Your task to perform on an android device: change timer sound Image 0: 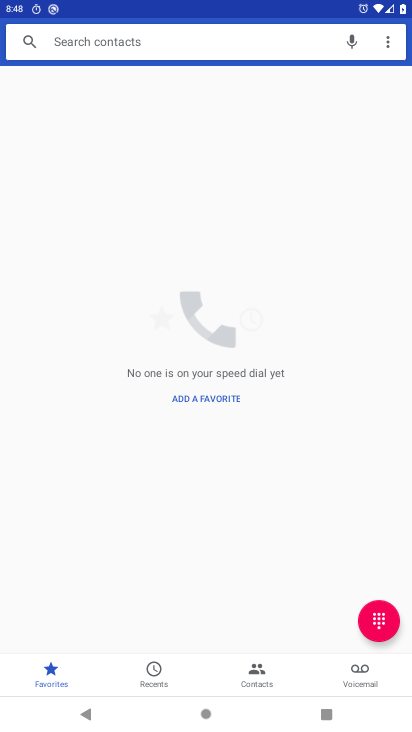
Step 0: press home button
Your task to perform on an android device: change timer sound Image 1: 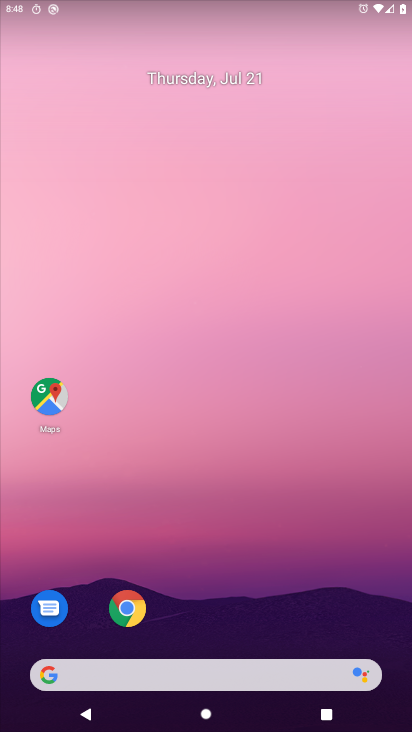
Step 1: drag from (30, 702) to (178, 273)
Your task to perform on an android device: change timer sound Image 2: 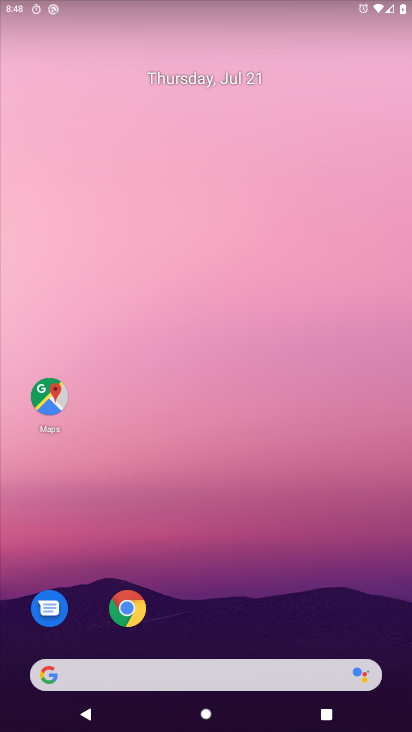
Step 2: drag from (37, 720) to (288, 43)
Your task to perform on an android device: change timer sound Image 3: 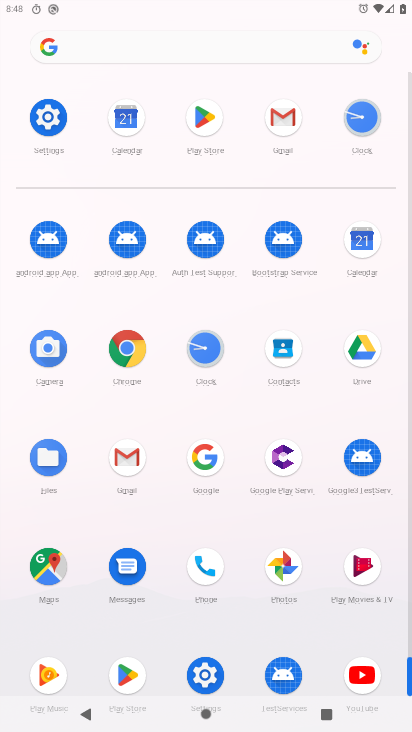
Step 3: click (197, 357)
Your task to perform on an android device: change timer sound Image 4: 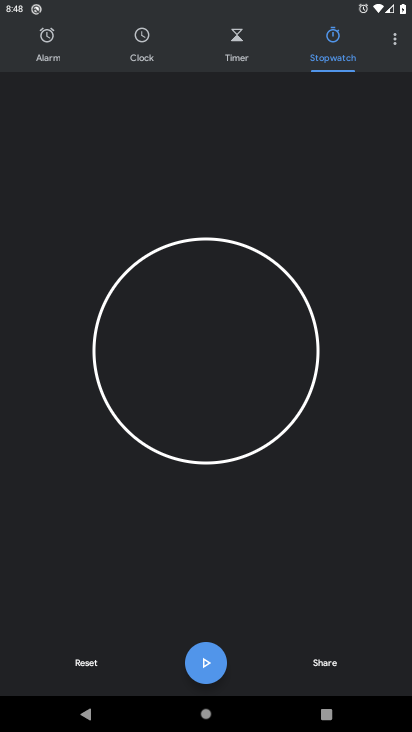
Step 4: click (229, 53)
Your task to perform on an android device: change timer sound Image 5: 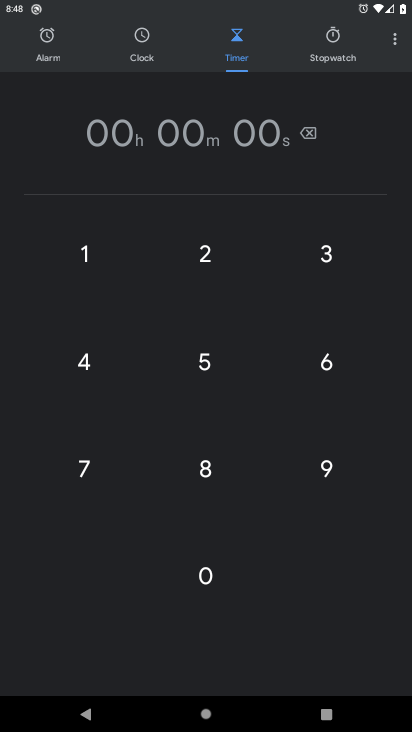
Step 5: click (391, 42)
Your task to perform on an android device: change timer sound Image 6: 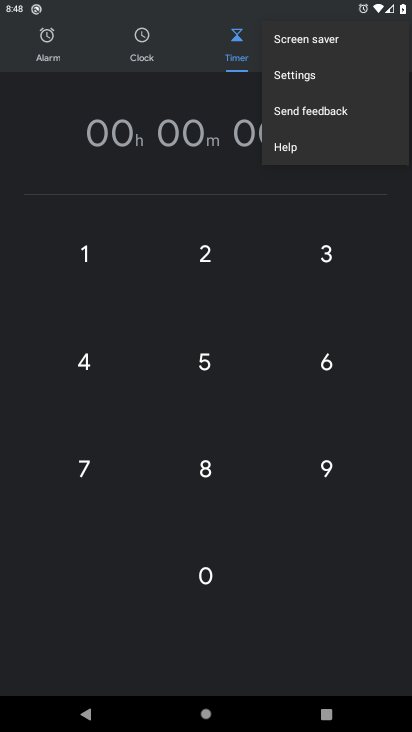
Step 6: click (294, 76)
Your task to perform on an android device: change timer sound Image 7: 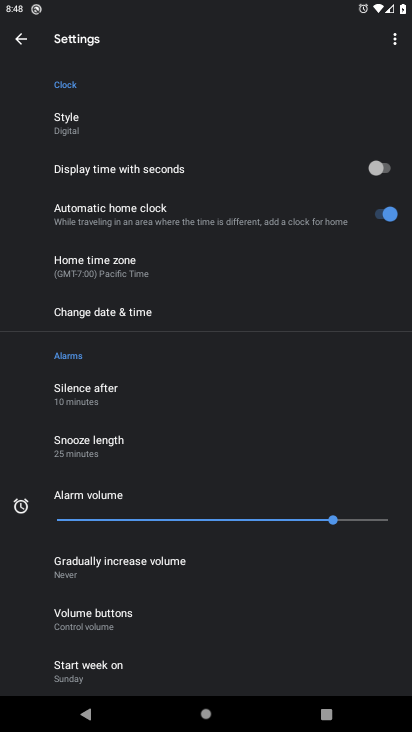
Step 7: drag from (251, 634) to (270, 230)
Your task to perform on an android device: change timer sound Image 8: 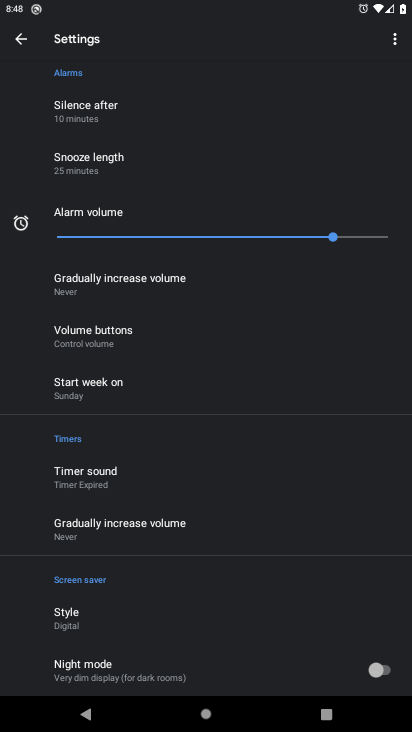
Step 8: click (98, 482)
Your task to perform on an android device: change timer sound Image 9: 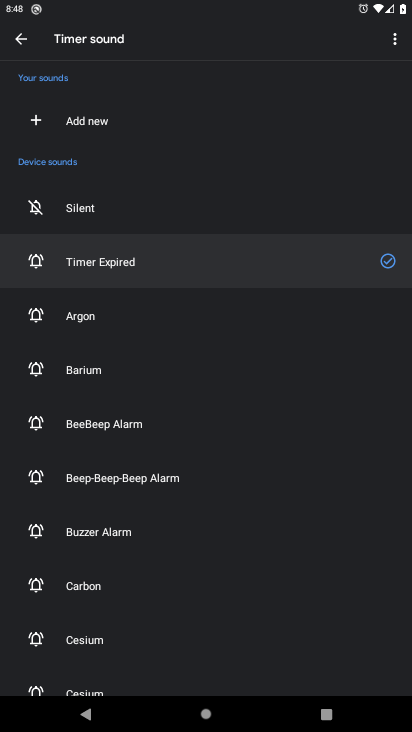
Step 9: click (82, 367)
Your task to perform on an android device: change timer sound Image 10: 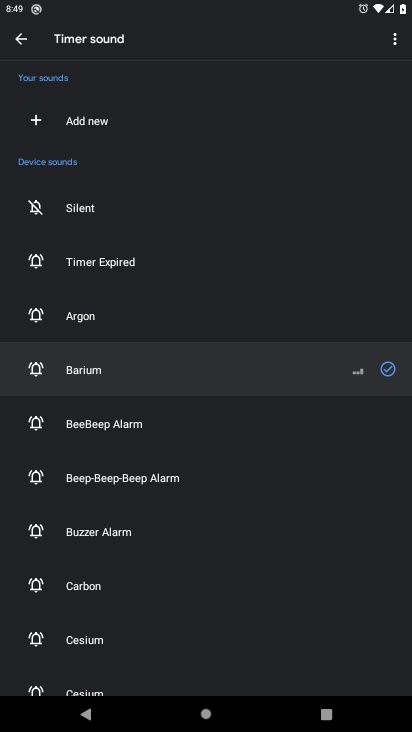
Step 10: task complete